Your task to perform on an android device: Go to ESPN.com Image 0: 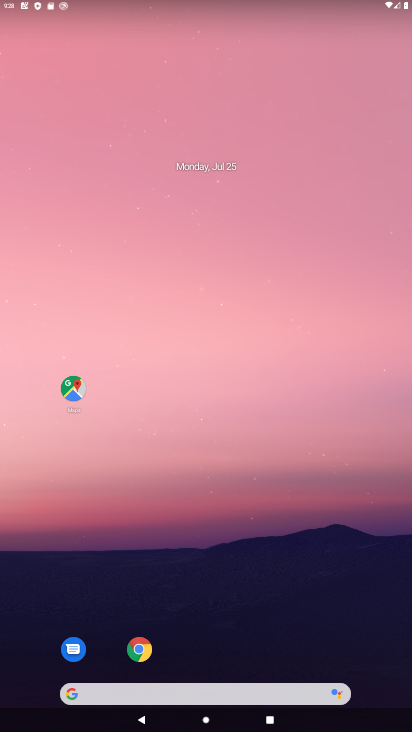
Step 0: drag from (272, 623) to (147, 53)
Your task to perform on an android device: Go to ESPN.com Image 1: 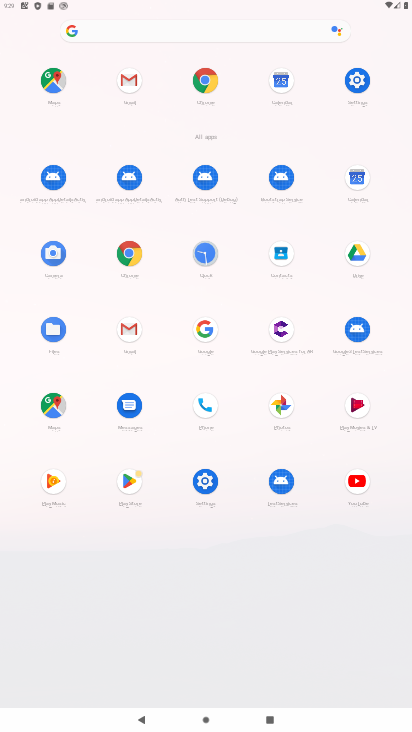
Step 1: click (211, 79)
Your task to perform on an android device: Go to ESPN.com Image 2: 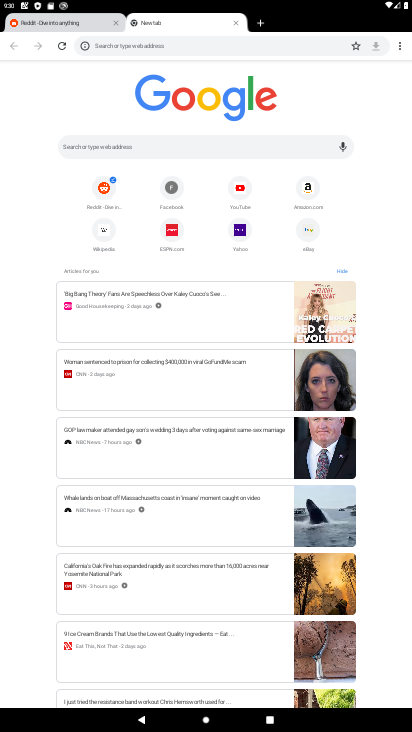
Step 2: click (173, 234)
Your task to perform on an android device: Go to ESPN.com Image 3: 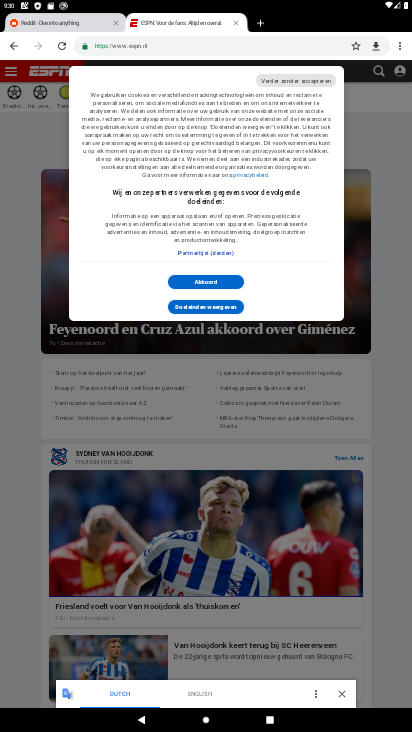
Step 3: task complete